Your task to perform on an android device: check data usage Image 0: 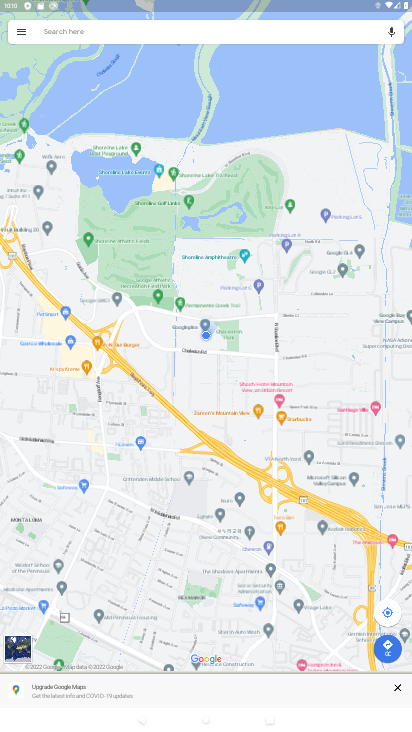
Step 0: drag from (302, 4) to (215, 569)
Your task to perform on an android device: check data usage Image 1: 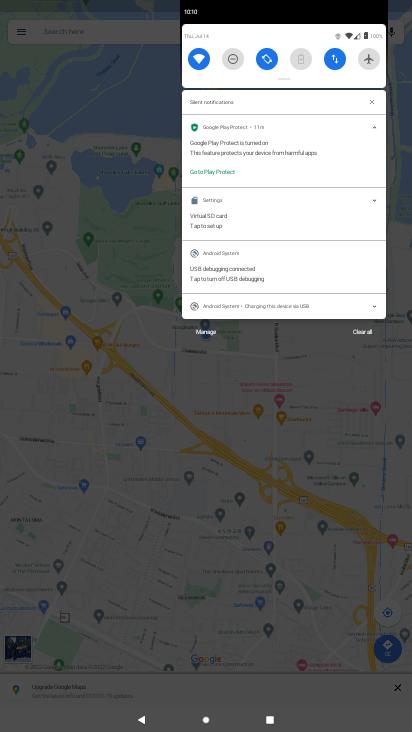
Step 1: click (339, 53)
Your task to perform on an android device: check data usage Image 2: 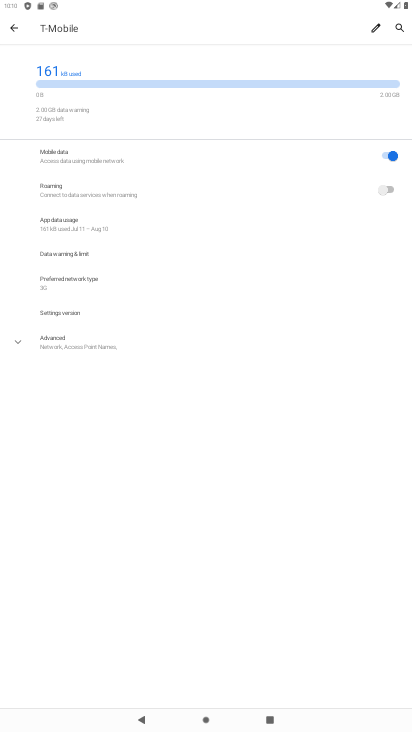
Step 2: task complete